Your task to perform on an android device: turn off smart reply in the gmail app Image 0: 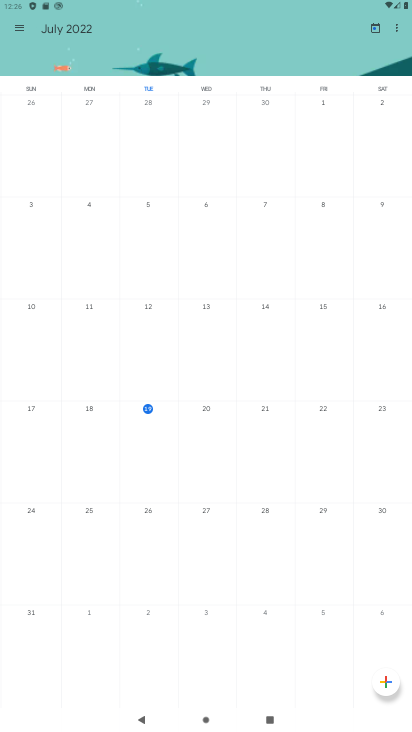
Step 0: press home button
Your task to perform on an android device: turn off smart reply in the gmail app Image 1: 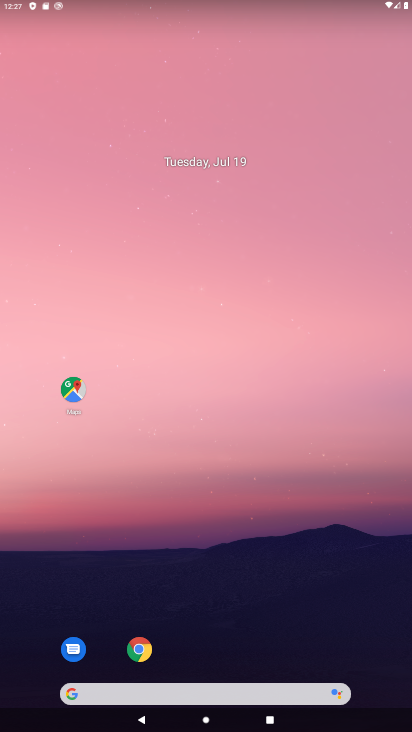
Step 1: drag from (241, 677) to (252, 163)
Your task to perform on an android device: turn off smart reply in the gmail app Image 2: 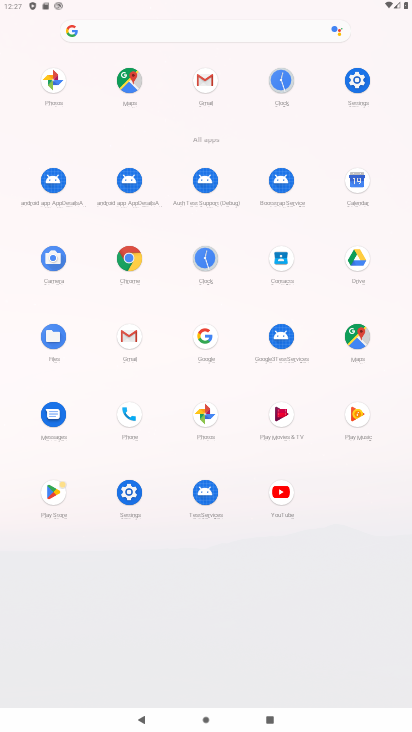
Step 2: click (131, 321)
Your task to perform on an android device: turn off smart reply in the gmail app Image 3: 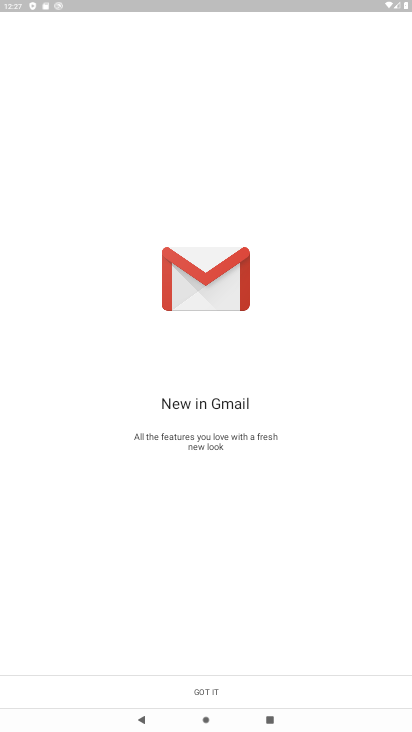
Step 3: click (223, 696)
Your task to perform on an android device: turn off smart reply in the gmail app Image 4: 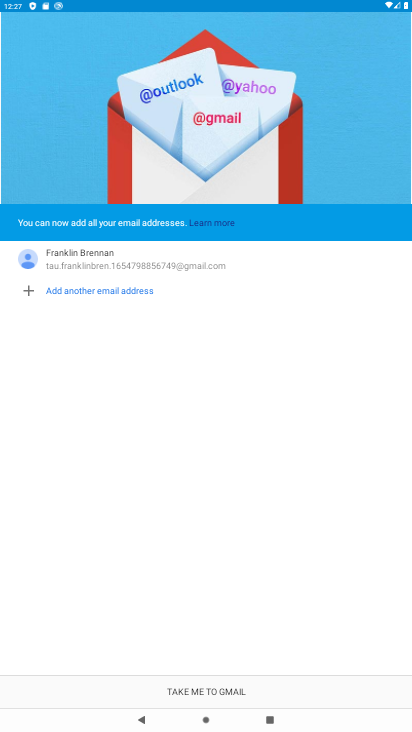
Step 4: click (225, 687)
Your task to perform on an android device: turn off smart reply in the gmail app Image 5: 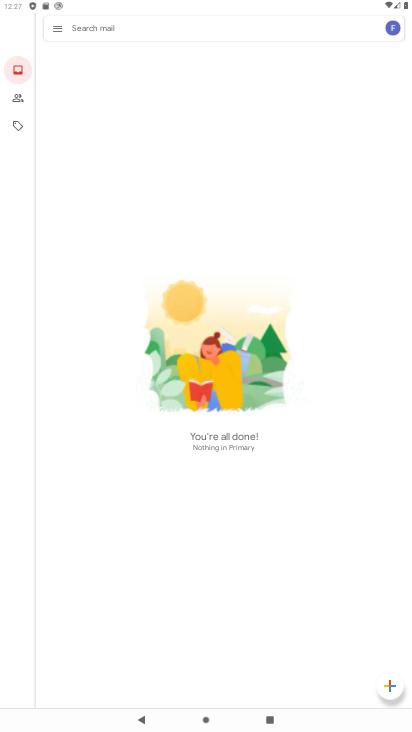
Step 5: click (63, 37)
Your task to perform on an android device: turn off smart reply in the gmail app Image 6: 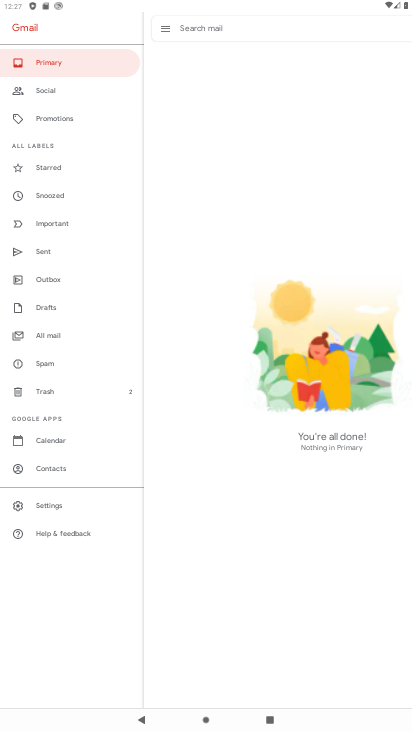
Step 6: click (73, 495)
Your task to perform on an android device: turn off smart reply in the gmail app Image 7: 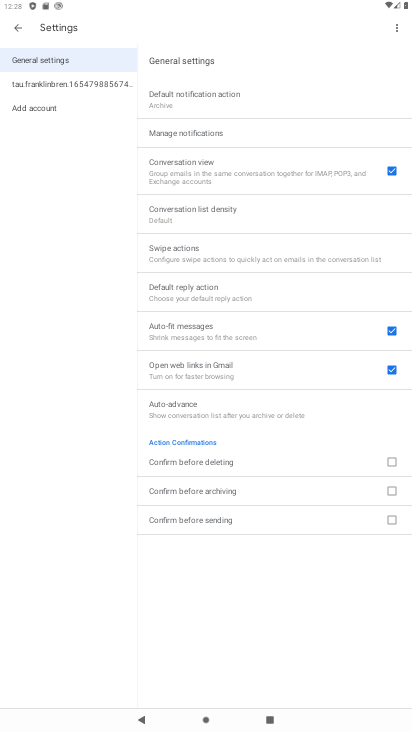
Step 7: click (82, 94)
Your task to perform on an android device: turn off smart reply in the gmail app Image 8: 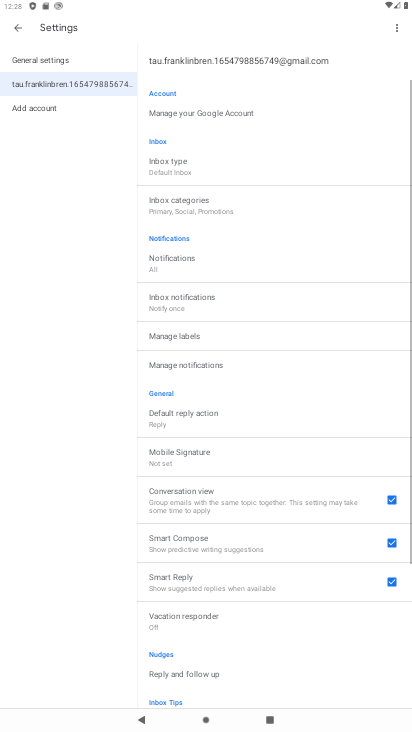
Step 8: drag from (247, 598) to (299, 371)
Your task to perform on an android device: turn off smart reply in the gmail app Image 9: 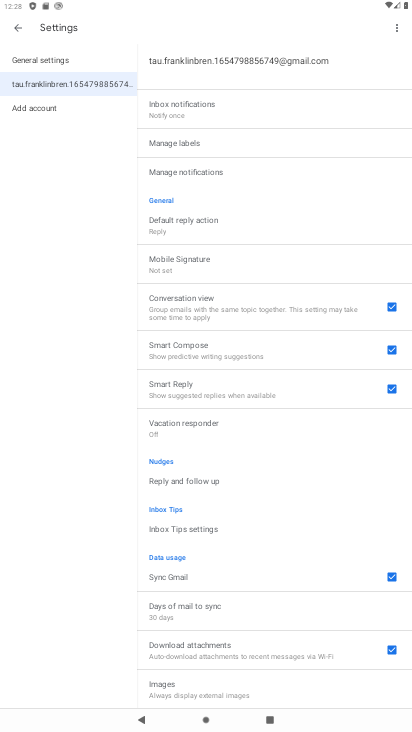
Step 9: click (395, 386)
Your task to perform on an android device: turn off smart reply in the gmail app Image 10: 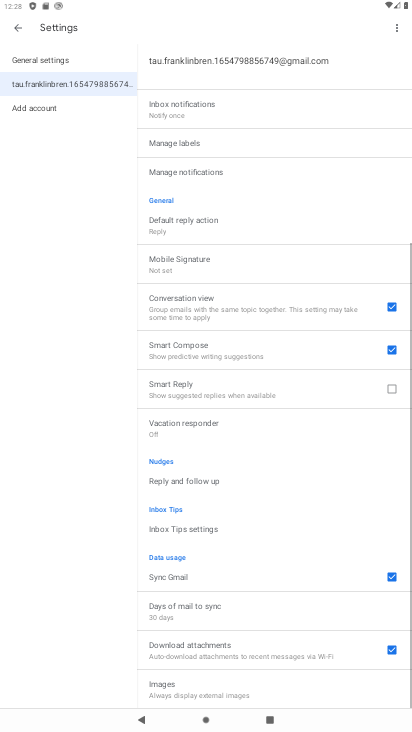
Step 10: task complete